Your task to perform on an android device: Find coffee shops on Maps Image 0: 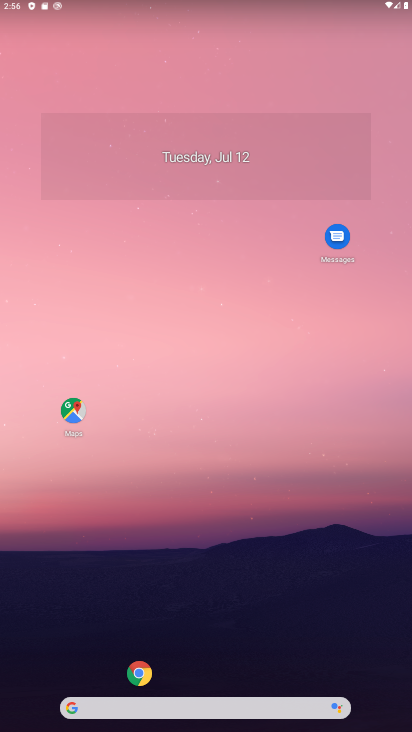
Step 0: click (80, 419)
Your task to perform on an android device: Find coffee shops on Maps Image 1: 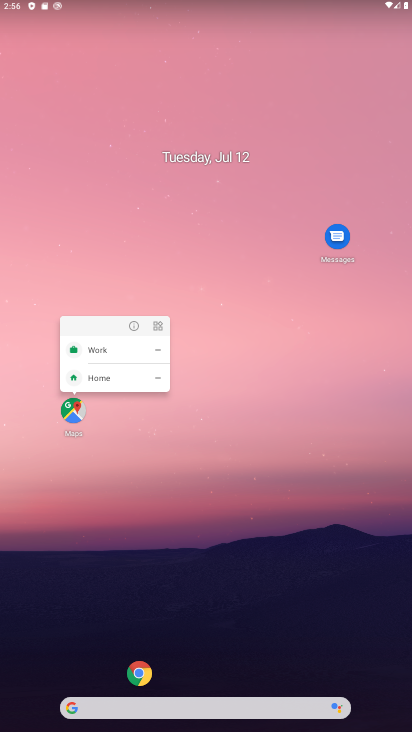
Step 1: click (79, 418)
Your task to perform on an android device: Find coffee shops on Maps Image 2: 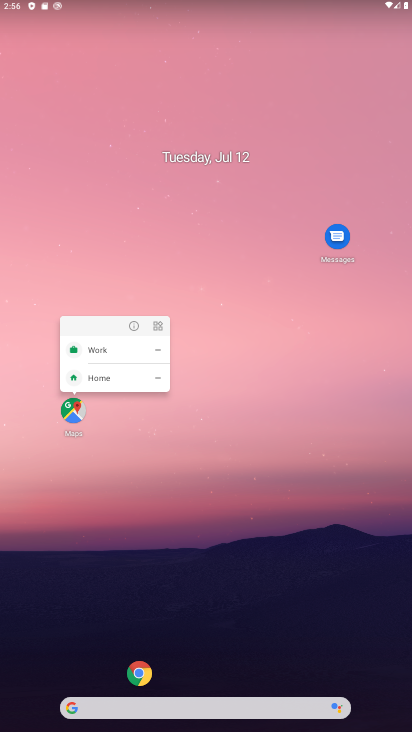
Step 2: click (51, 407)
Your task to perform on an android device: Find coffee shops on Maps Image 3: 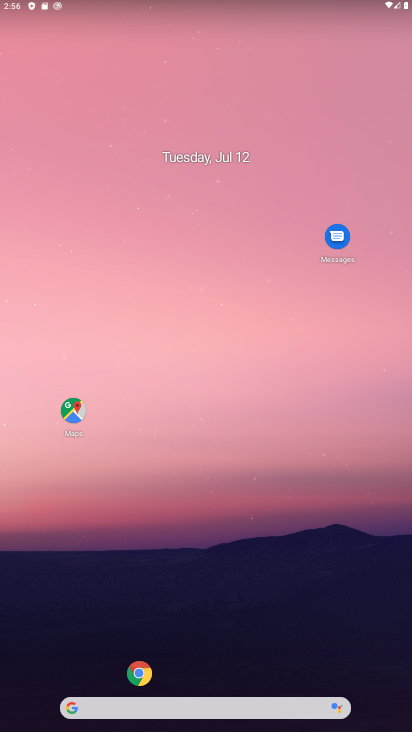
Step 3: click (77, 395)
Your task to perform on an android device: Find coffee shops on Maps Image 4: 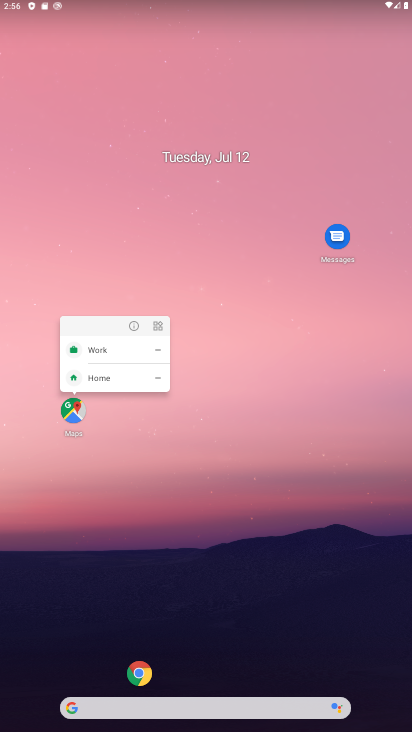
Step 4: click (74, 411)
Your task to perform on an android device: Find coffee shops on Maps Image 5: 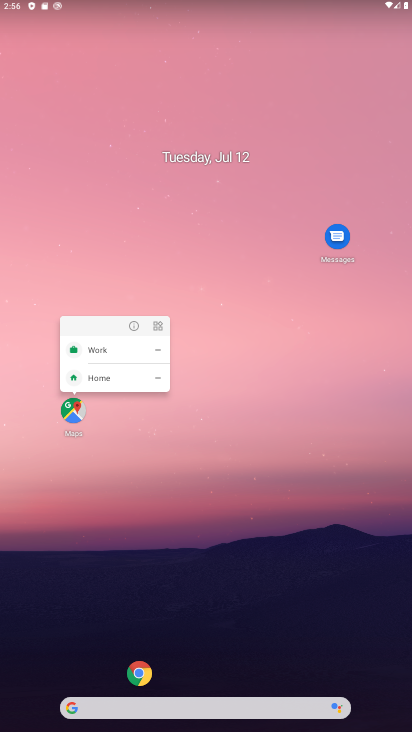
Step 5: click (65, 409)
Your task to perform on an android device: Find coffee shops on Maps Image 6: 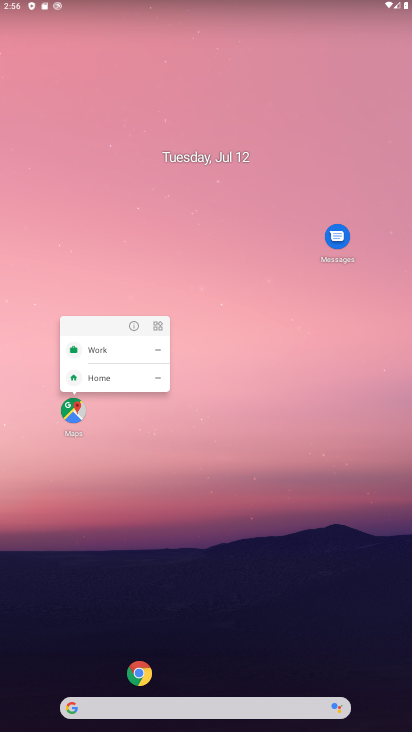
Step 6: task complete